Your task to perform on an android device: Open eBay Image 0: 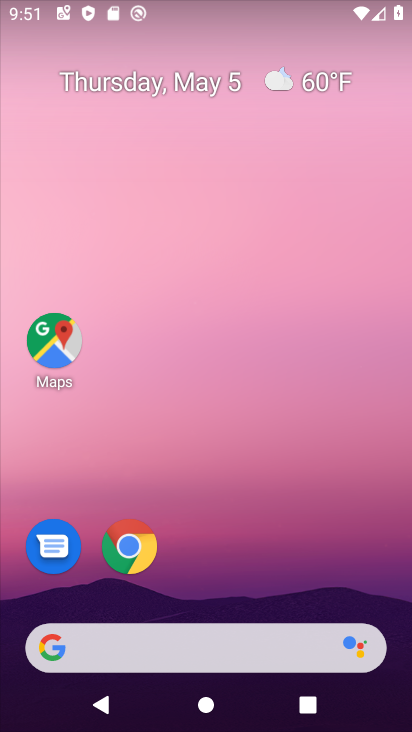
Step 0: click (137, 556)
Your task to perform on an android device: Open eBay Image 1: 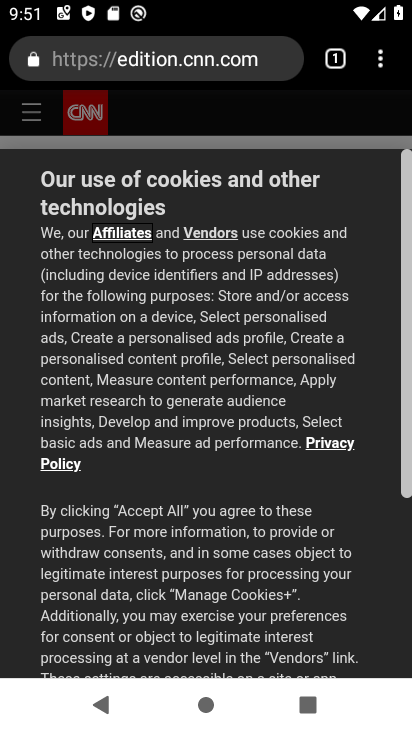
Step 1: click (176, 79)
Your task to perform on an android device: Open eBay Image 2: 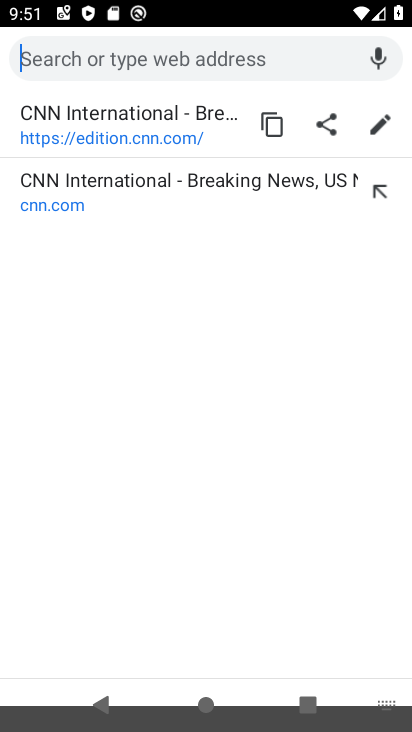
Step 2: click (185, 69)
Your task to perform on an android device: Open eBay Image 3: 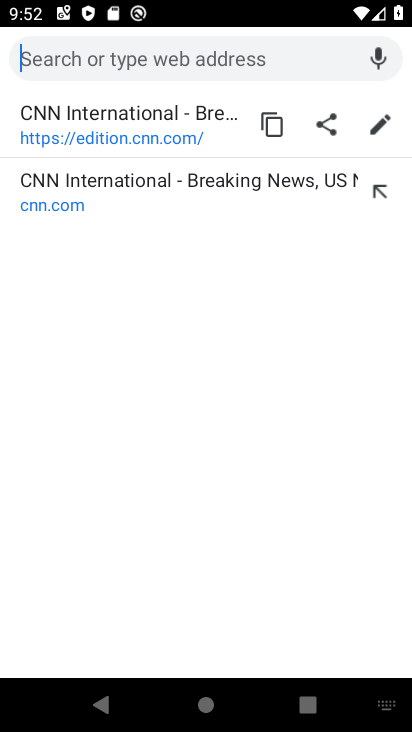
Step 3: type "ebay"
Your task to perform on an android device: Open eBay Image 4: 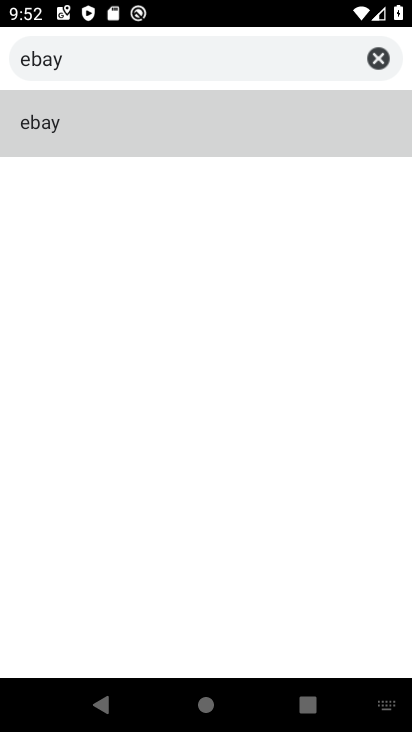
Step 4: click (111, 131)
Your task to perform on an android device: Open eBay Image 5: 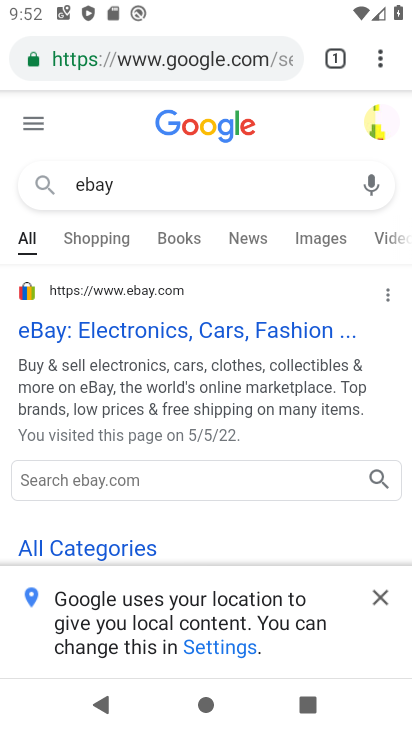
Step 5: click (151, 320)
Your task to perform on an android device: Open eBay Image 6: 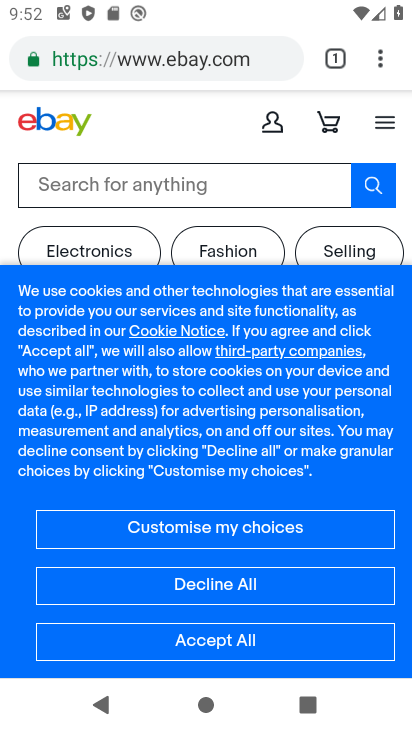
Step 6: task complete